Your task to perform on an android device: Open Maps and search for coffee Image 0: 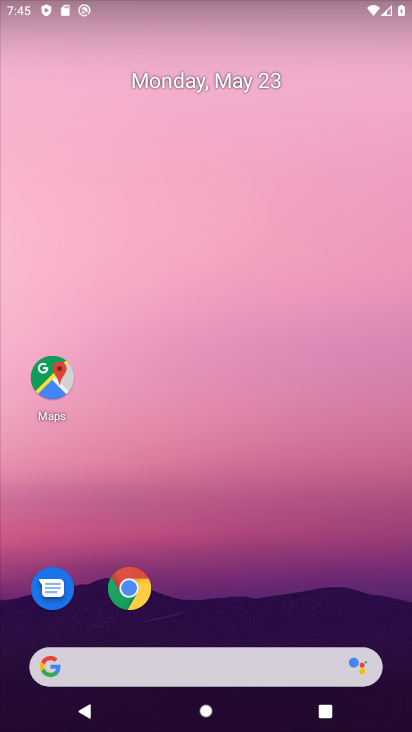
Step 0: click (53, 376)
Your task to perform on an android device: Open Maps and search for coffee Image 1: 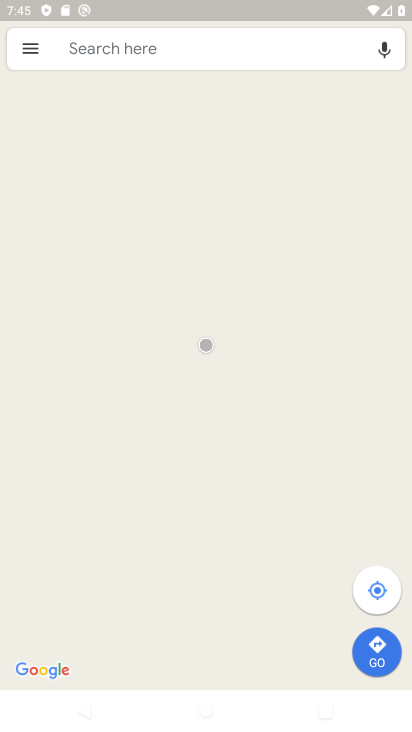
Step 1: click (69, 48)
Your task to perform on an android device: Open Maps and search for coffee Image 2: 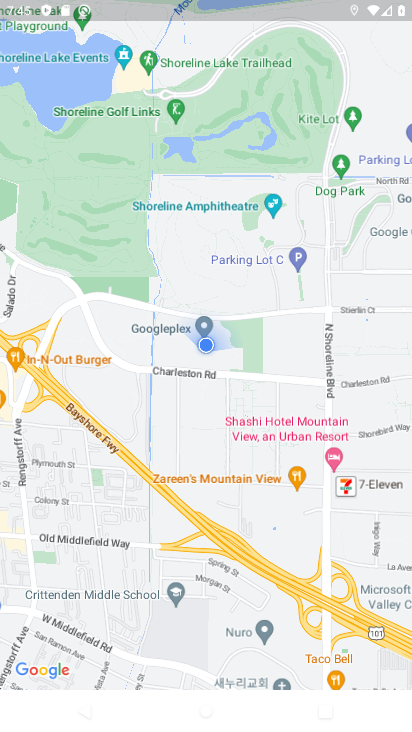
Step 2: press back button
Your task to perform on an android device: Open Maps and search for coffee Image 3: 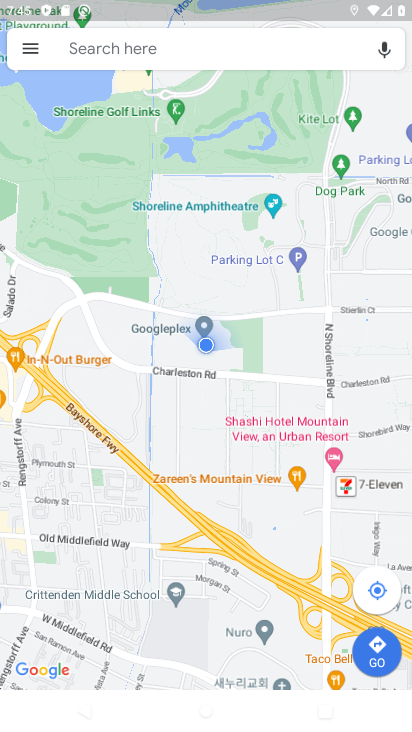
Step 3: click (78, 44)
Your task to perform on an android device: Open Maps and search for coffee Image 4: 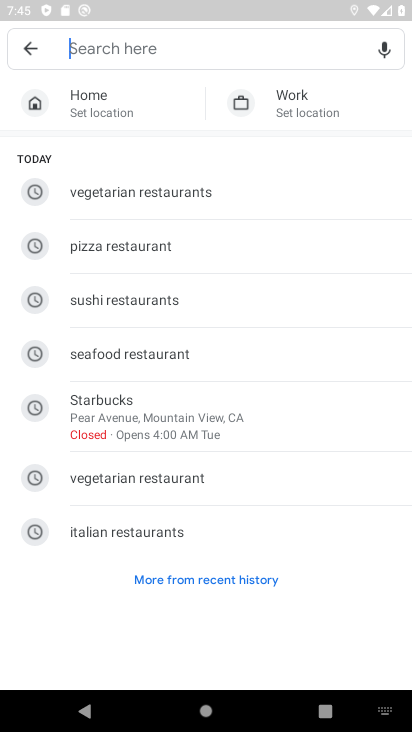
Step 4: type "coffee"
Your task to perform on an android device: Open Maps and search for coffee Image 5: 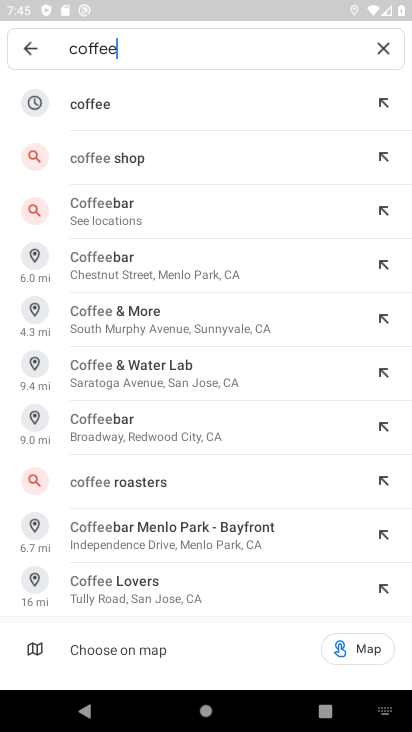
Step 5: click (116, 156)
Your task to perform on an android device: Open Maps and search for coffee Image 6: 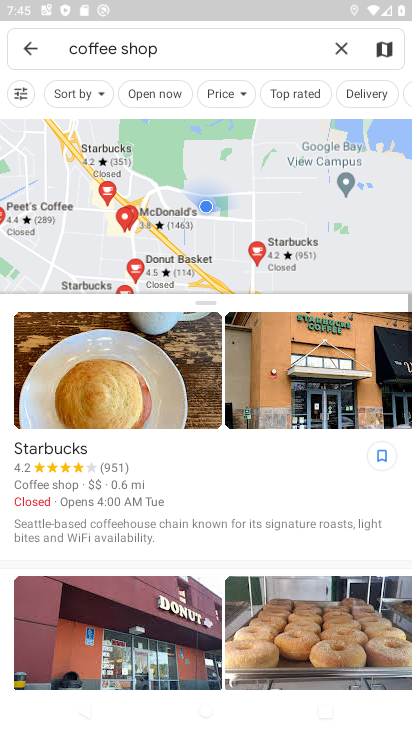
Step 6: task complete